Your task to perform on an android device: turn on the 12-hour format for clock Image 0: 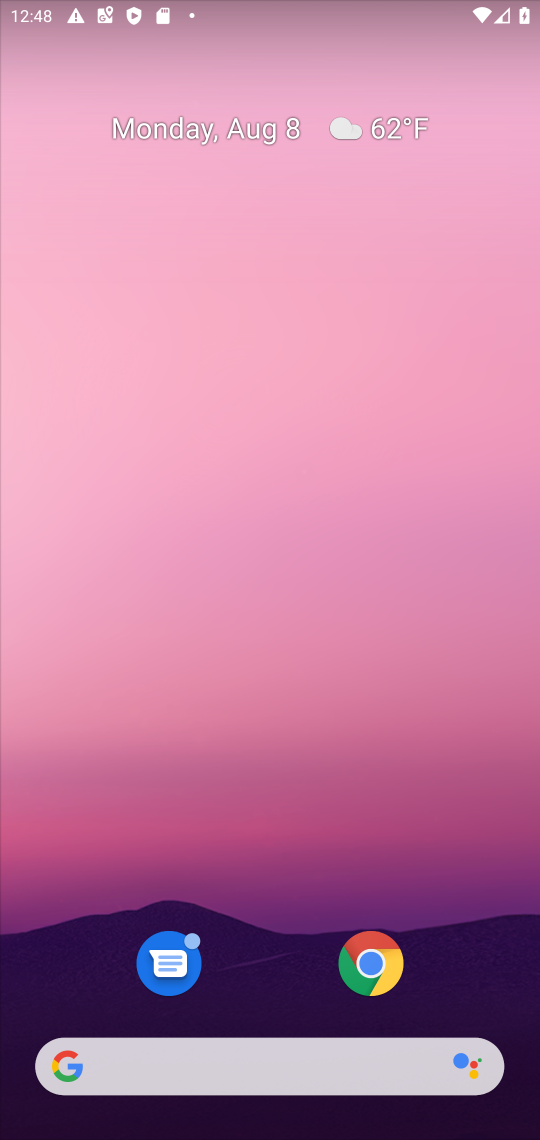
Step 0: drag from (483, 998) to (288, 63)
Your task to perform on an android device: turn on the 12-hour format for clock Image 1: 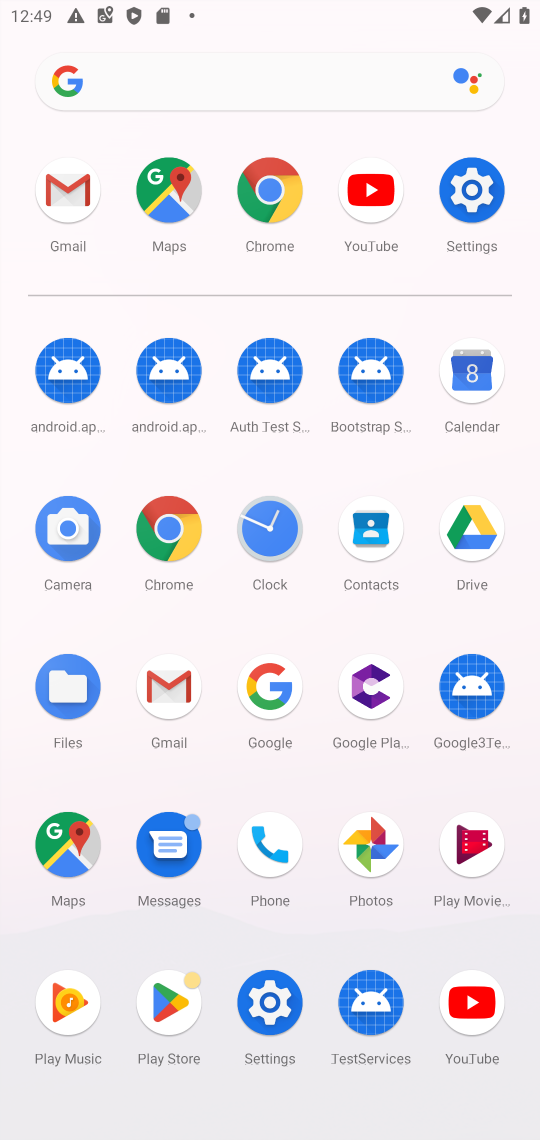
Step 1: click (265, 538)
Your task to perform on an android device: turn on the 12-hour format for clock Image 2: 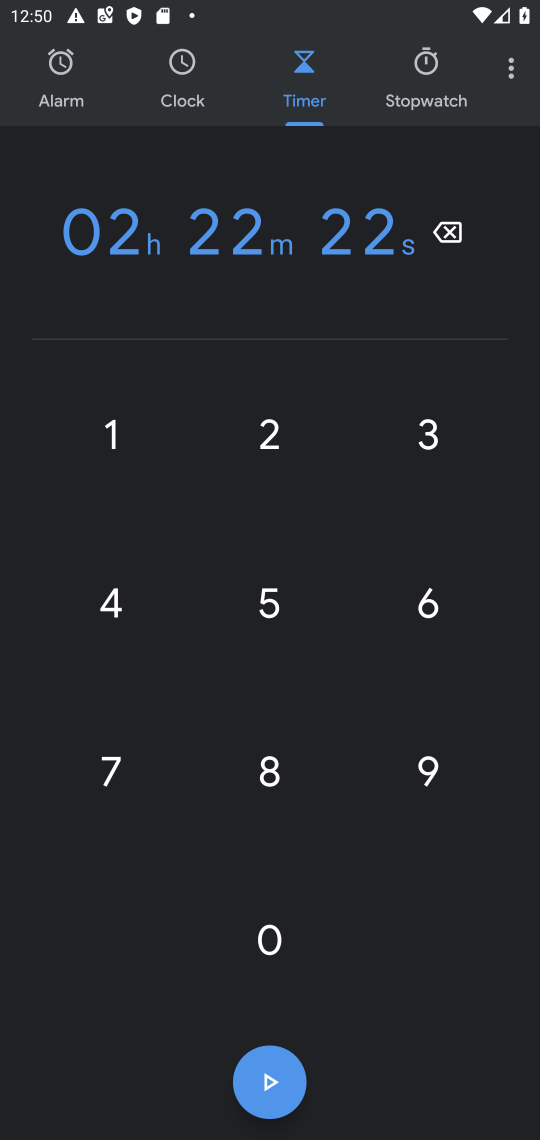
Step 2: press home button
Your task to perform on an android device: turn on the 12-hour format for clock Image 3: 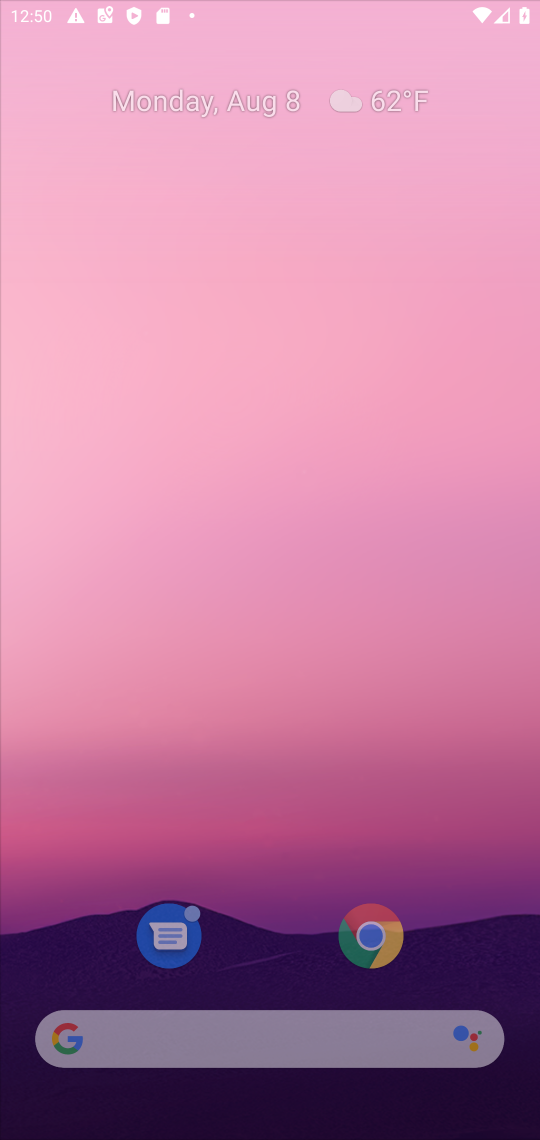
Step 3: drag from (460, 772) to (326, 1)
Your task to perform on an android device: turn on the 12-hour format for clock Image 4: 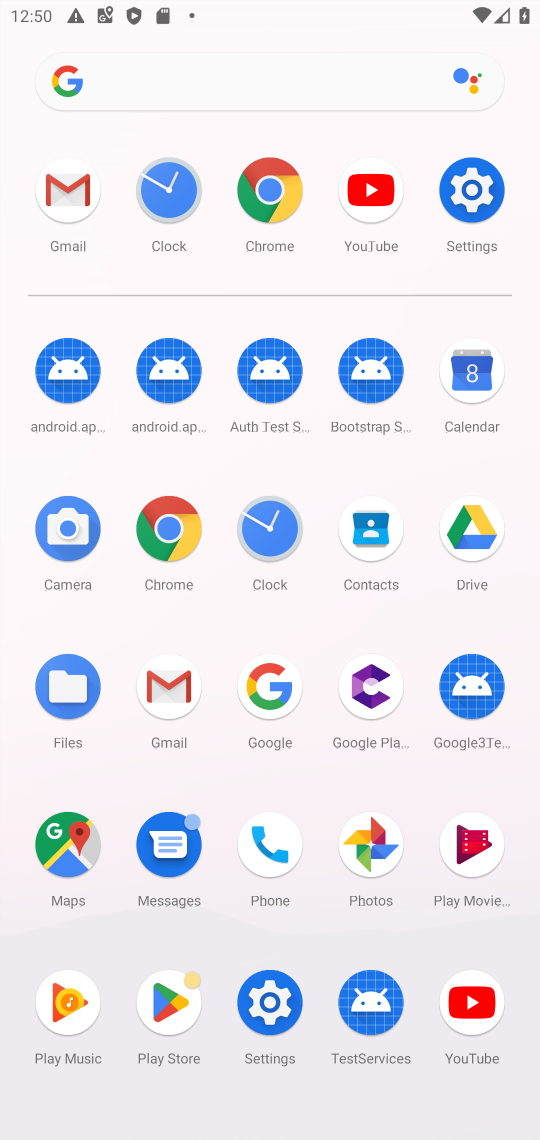
Step 4: click (268, 521)
Your task to perform on an android device: turn on the 12-hour format for clock Image 5: 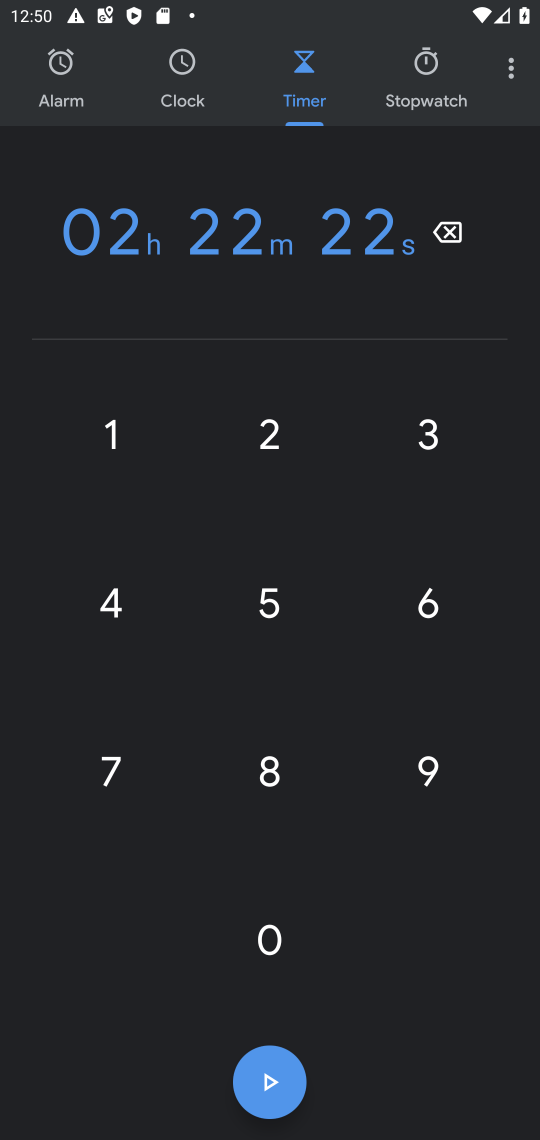
Step 5: click (507, 68)
Your task to perform on an android device: turn on the 12-hour format for clock Image 6: 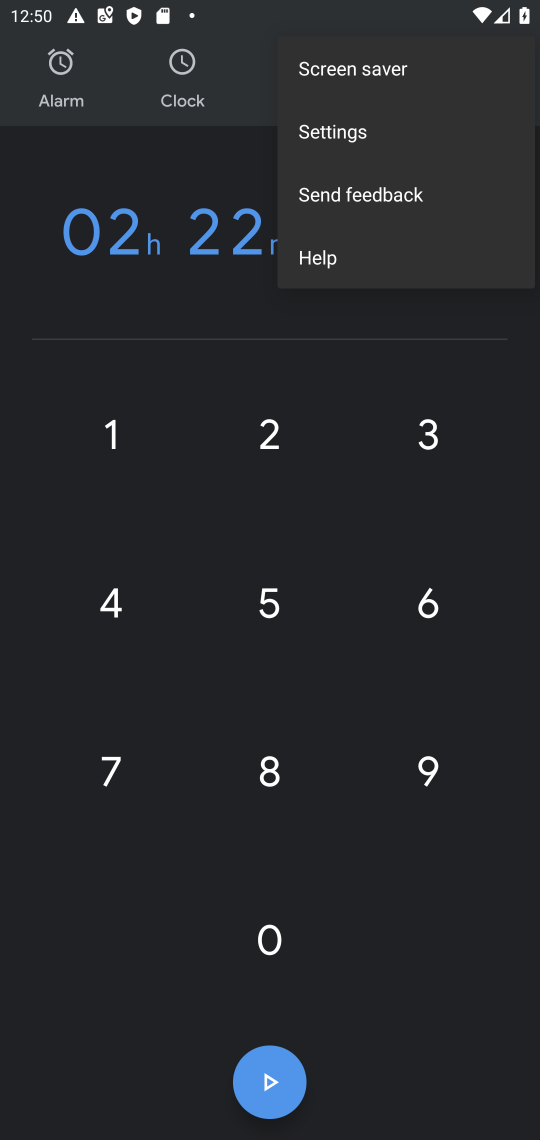
Step 6: click (394, 132)
Your task to perform on an android device: turn on the 12-hour format for clock Image 7: 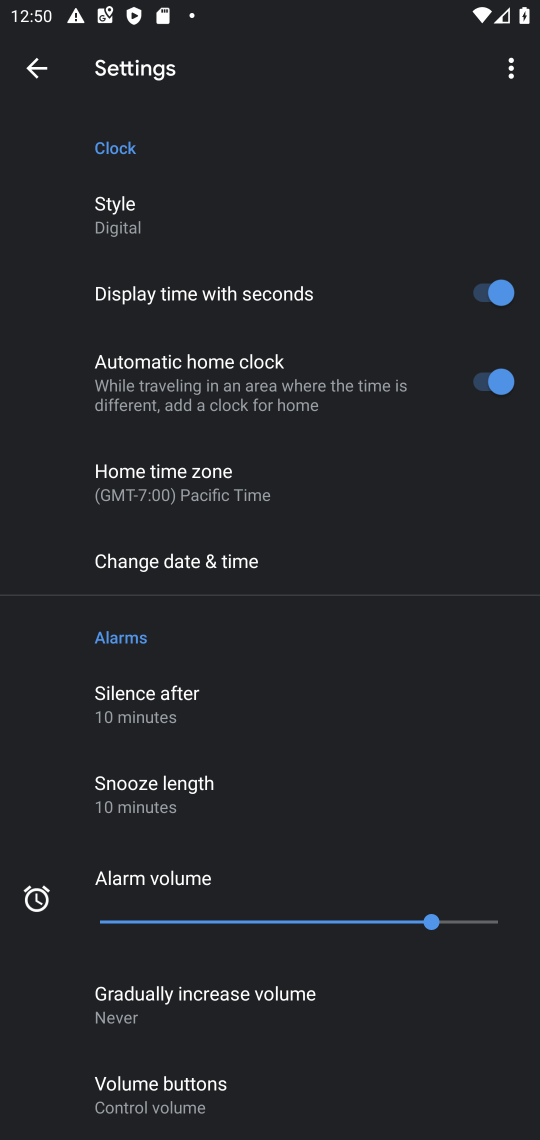
Step 7: click (203, 572)
Your task to perform on an android device: turn on the 12-hour format for clock Image 8: 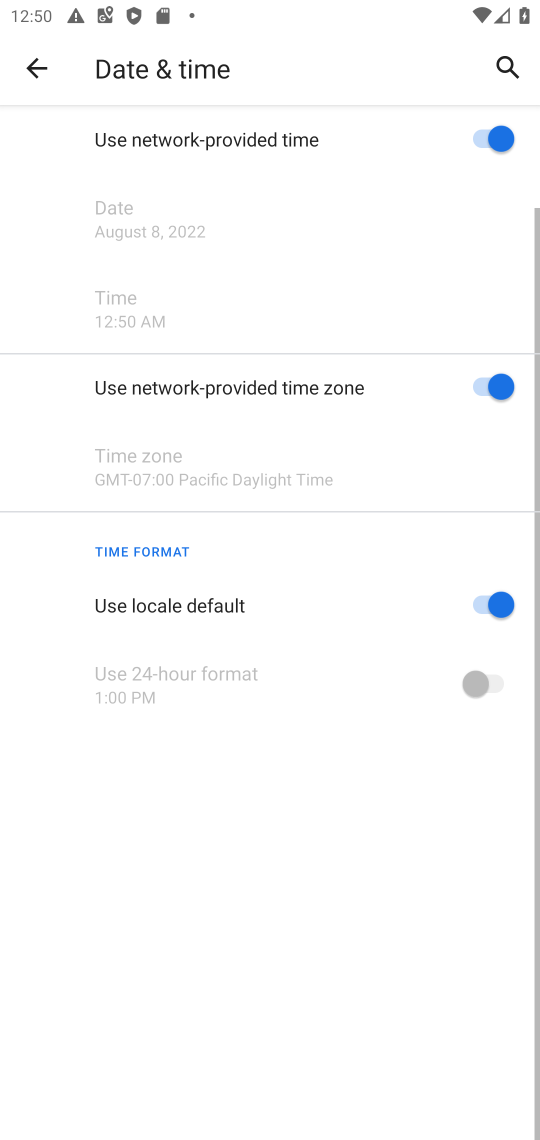
Step 8: task complete